Your task to perform on an android device: Go to Android settings Image 0: 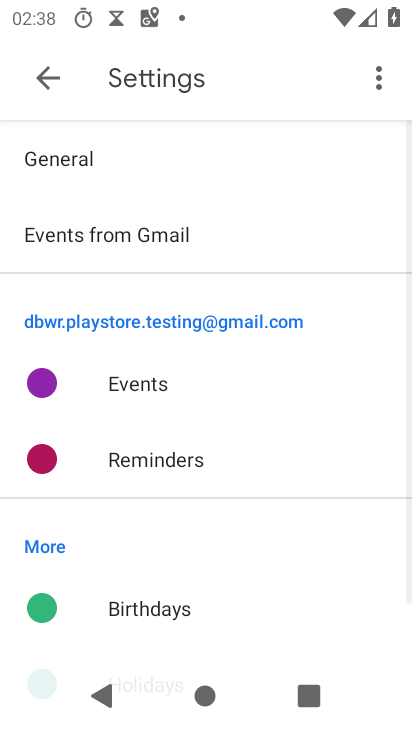
Step 0: press home button
Your task to perform on an android device: Go to Android settings Image 1: 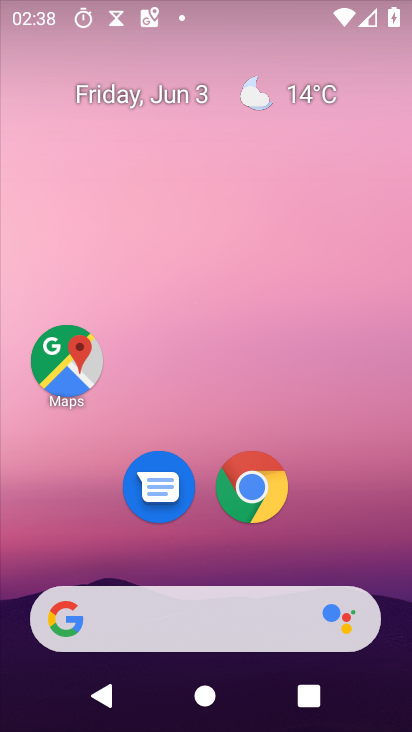
Step 1: drag from (347, 423) to (200, 26)
Your task to perform on an android device: Go to Android settings Image 2: 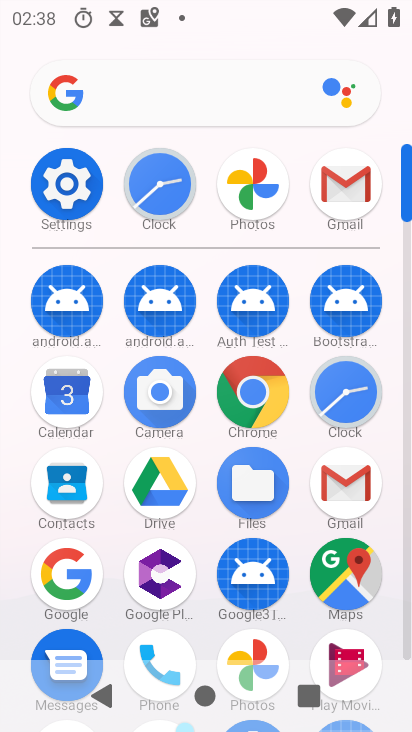
Step 2: click (59, 193)
Your task to perform on an android device: Go to Android settings Image 3: 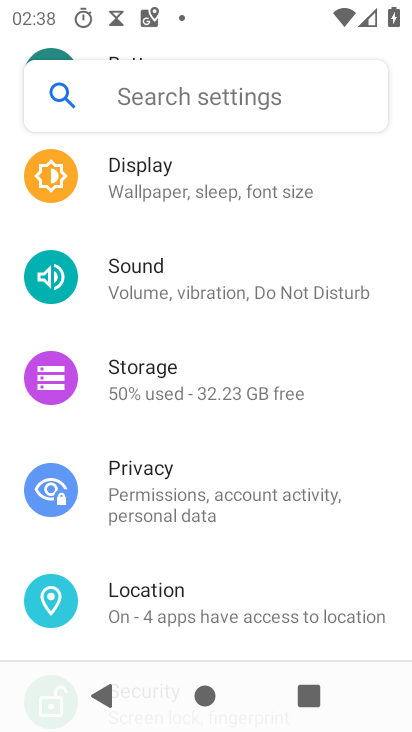
Step 3: drag from (225, 561) to (195, 212)
Your task to perform on an android device: Go to Android settings Image 4: 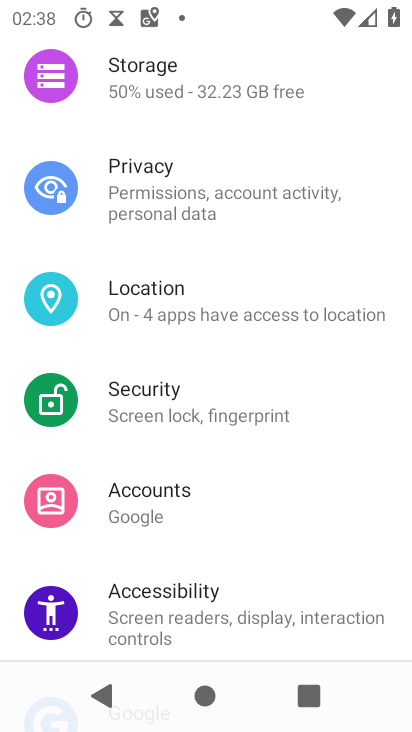
Step 4: drag from (272, 537) to (176, 25)
Your task to perform on an android device: Go to Android settings Image 5: 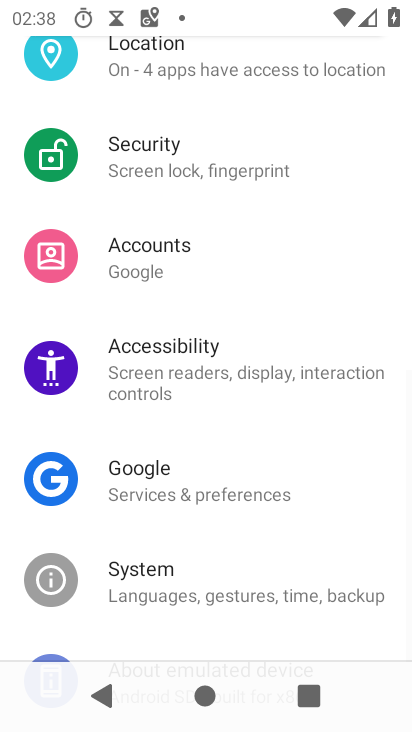
Step 5: drag from (225, 476) to (209, 42)
Your task to perform on an android device: Go to Android settings Image 6: 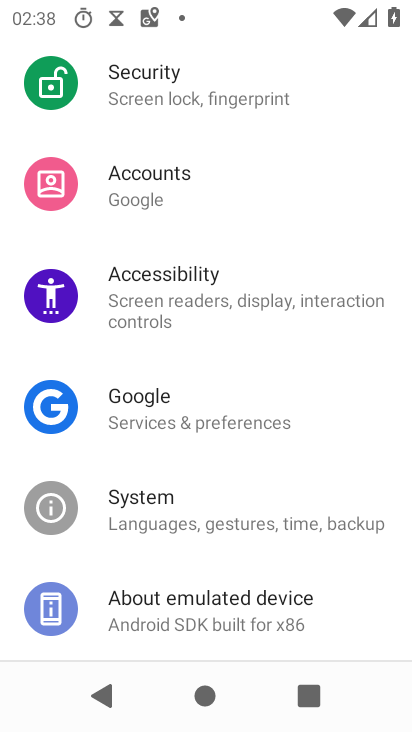
Step 6: click (217, 601)
Your task to perform on an android device: Go to Android settings Image 7: 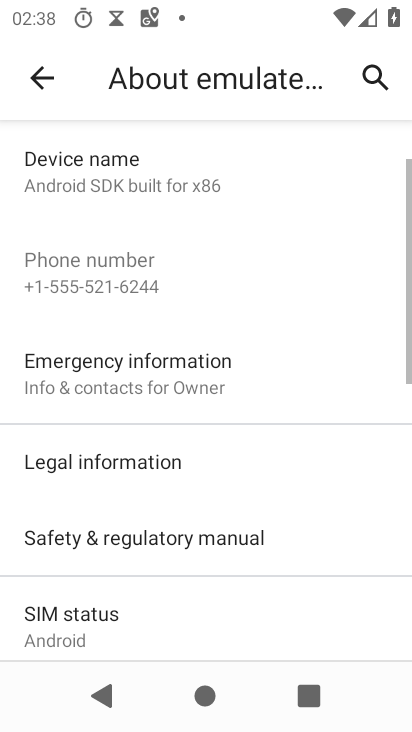
Step 7: drag from (236, 563) to (217, 119)
Your task to perform on an android device: Go to Android settings Image 8: 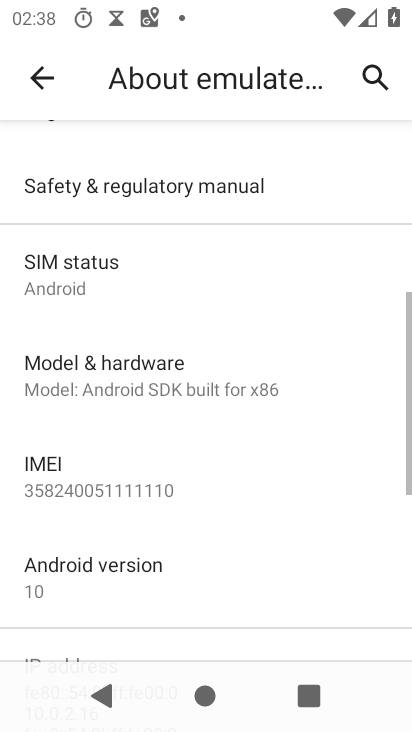
Step 8: click (161, 579)
Your task to perform on an android device: Go to Android settings Image 9: 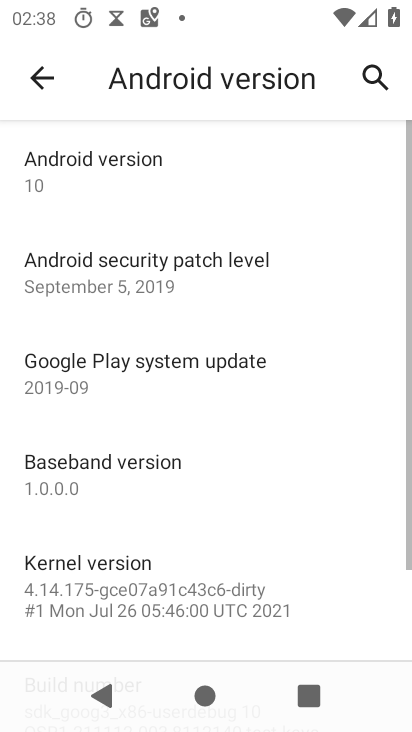
Step 9: task complete